Your task to perform on an android device: change the upload size in google photos Image 0: 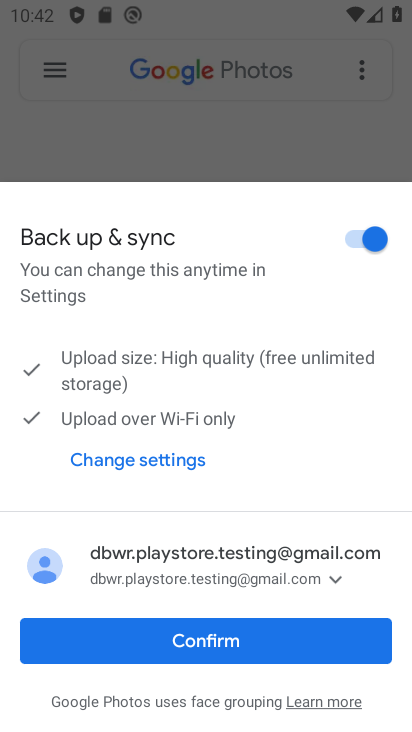
Step 0: press back button
Your task to perform on an android device: change the upload size in google photos Image 1: 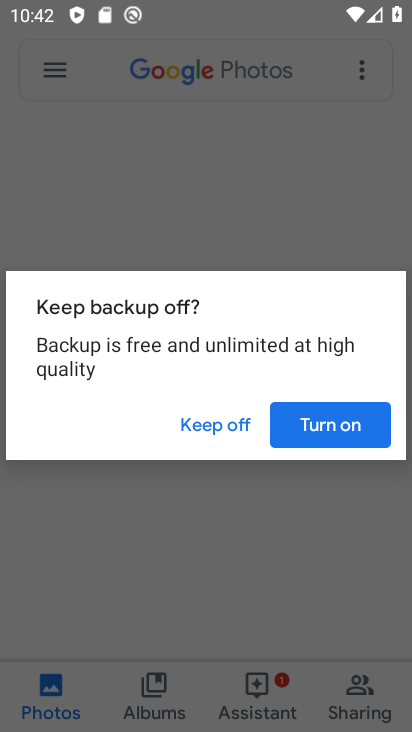
Step 1: press home button
Your task to perform on an android device: change the upload size in google photos Image 2: 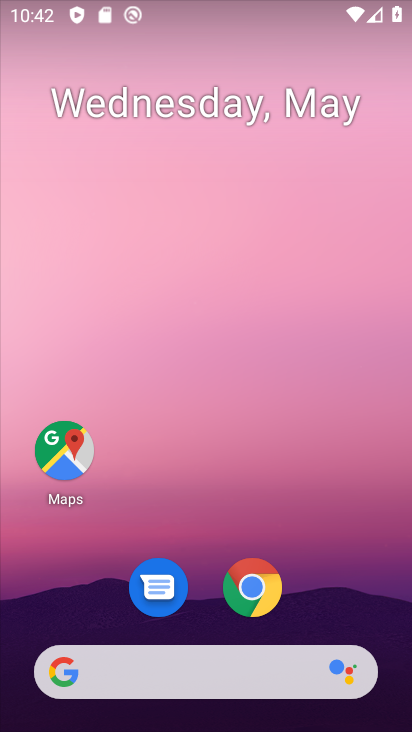
Step 2: drag from (181, 630) to (303, 50)
Your task to perform on an android device: change the upload size in google photos Image 3: 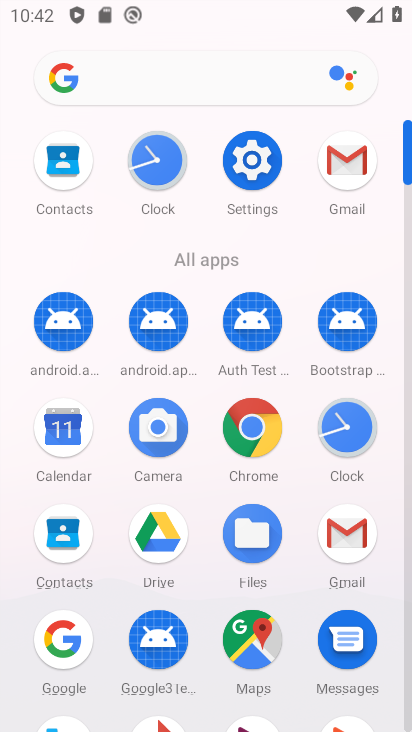
Step 3: drag from (189, 582) to (272, 131)
Your task to perform on an android device: change the upload size in google photos Image 4: 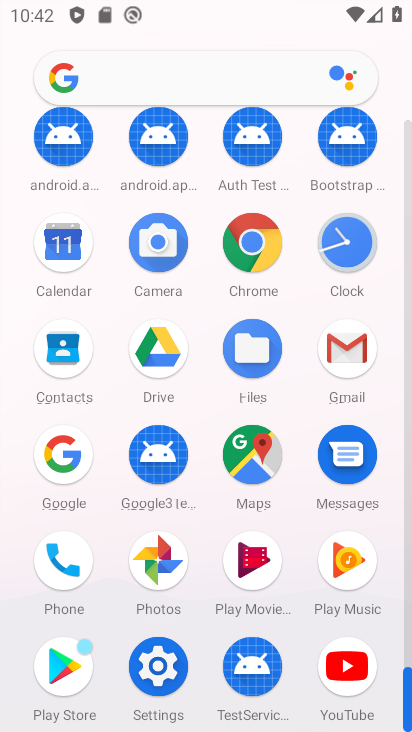
Step 4: click (165, 570)
Your task to perform on an android device: change the upload size in google photos Image 5: 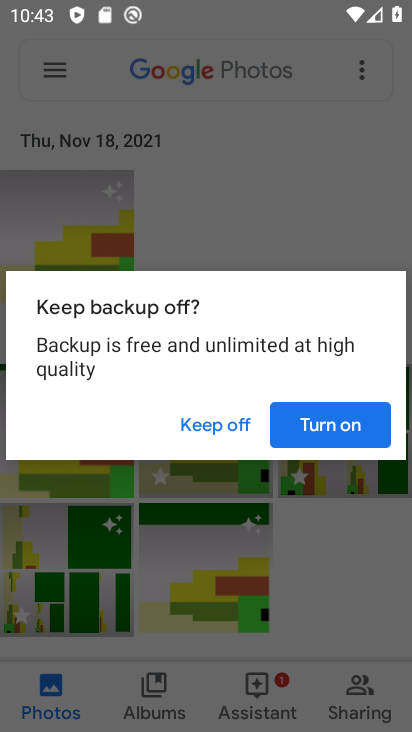
Step 5: click (330, 425)
Your task to perform on an android device: change the upload size in google photos Image 6: 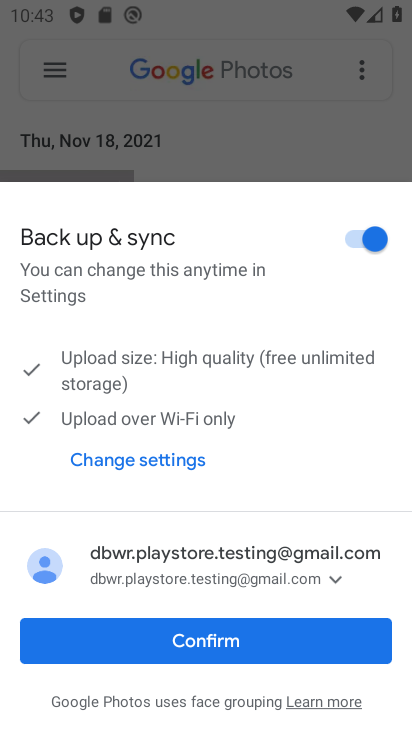
Step 6: click (237, 638)
Your task to perform on an android device: change the upload size in google photos Image 7: 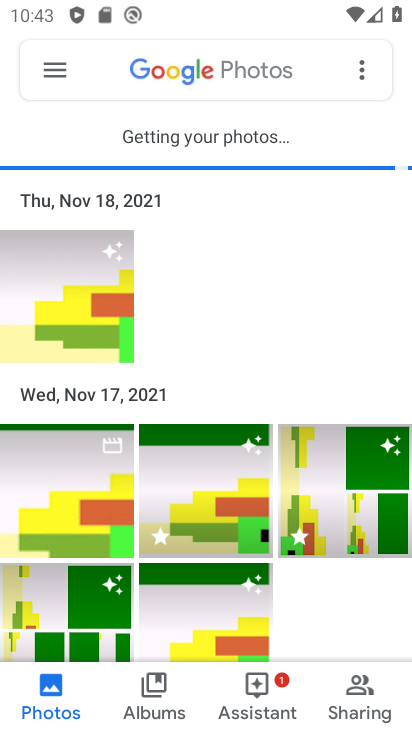
Step 7: click (52, 78)
Your task to perform on an android device: change the upload size in google photos Image 8: 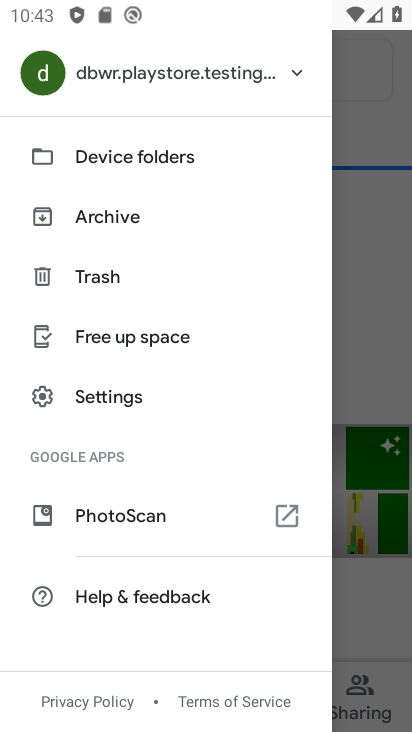
Step 8: click (119, 406)
Your task to perform on an android device: change the upload size in google photos Image 9: 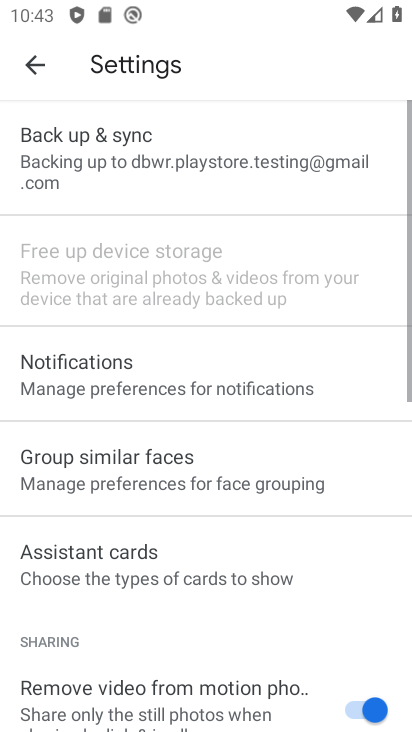
Step 9: click (165, 166)
Your task to perform on an android device: change the upload size in google photos Image 10: 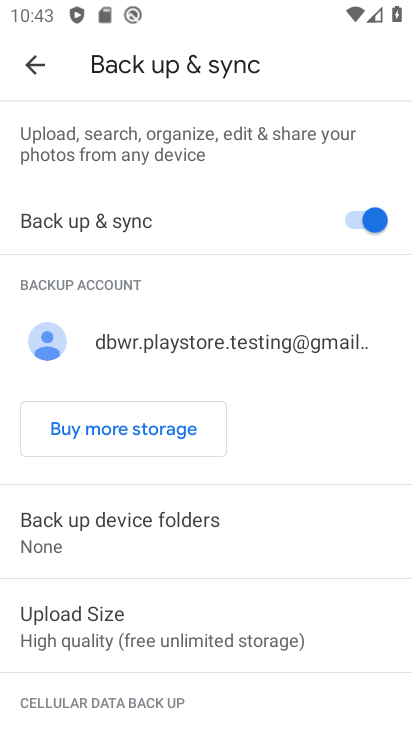
Step 10: click (114, 627)
Your task to perform on an android device: change the upload size in google photos Image 11: 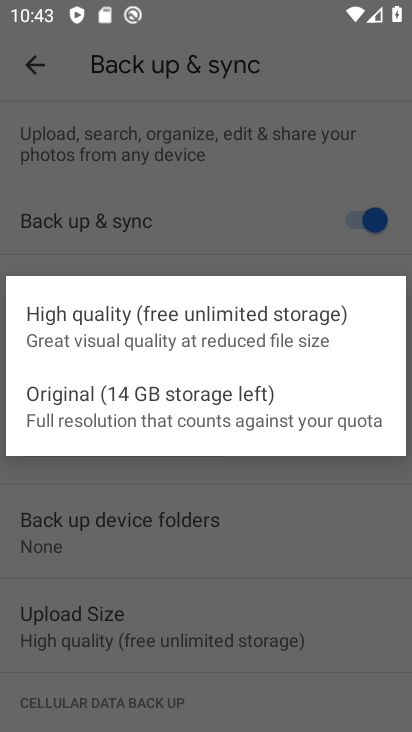
Step 11: click (82, 418)
Your task to perform on an android device: change the upload size in google photos Image 12: 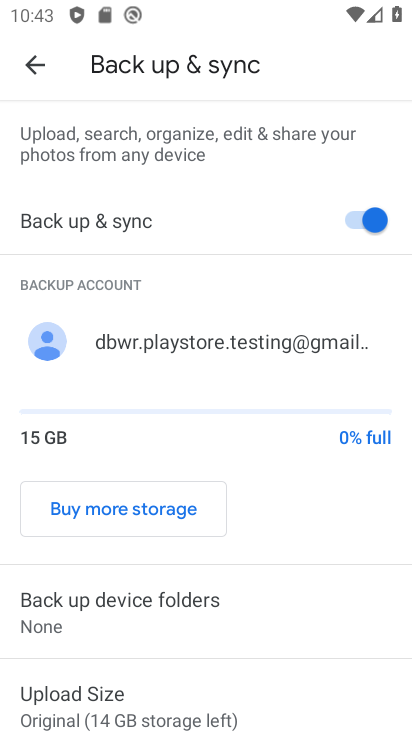
Step 12: task complete